Your task to perform on an android device: turn on location history Image 0: 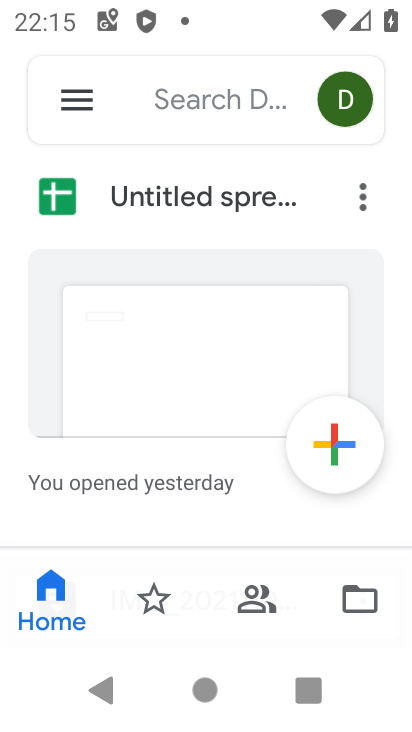
Step 0: press home button
Your task to perform on an android device: turn on location history Image 1: 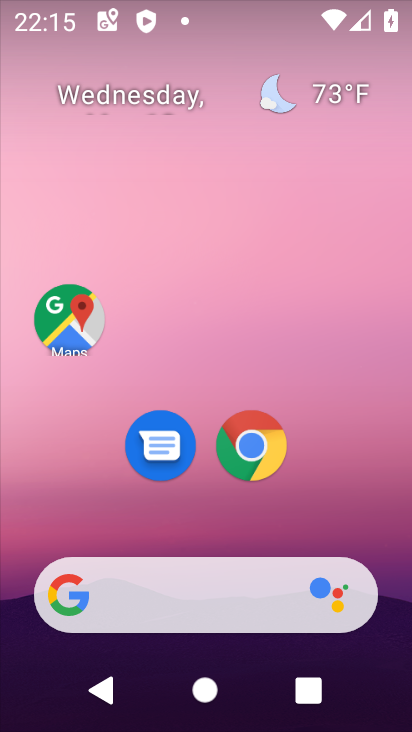
Step 1: drag from (292, 499) to (331, 101)
Your task to perform on an android device: turn on location history Image 2: 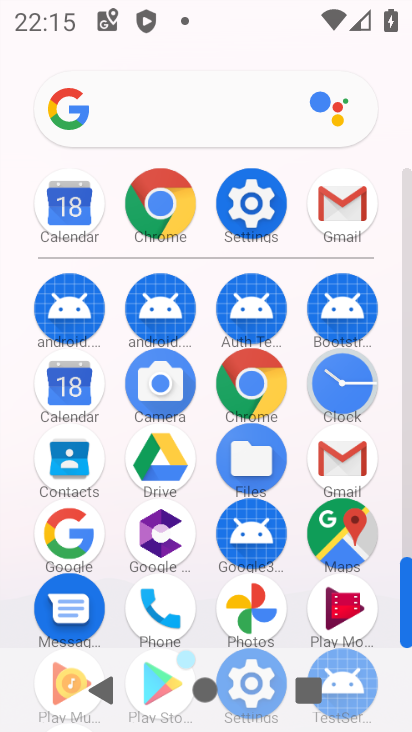
Step 2: click (244, 193)
Your task to perform on an android device: turn on location history Image 3: 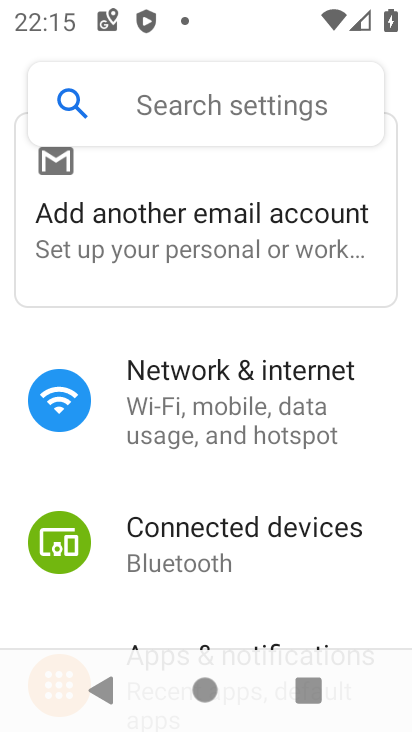
Step 3: drag from (231, 570) to (297, 125)
Your task to perform on an android device: turn on location history Image 4: 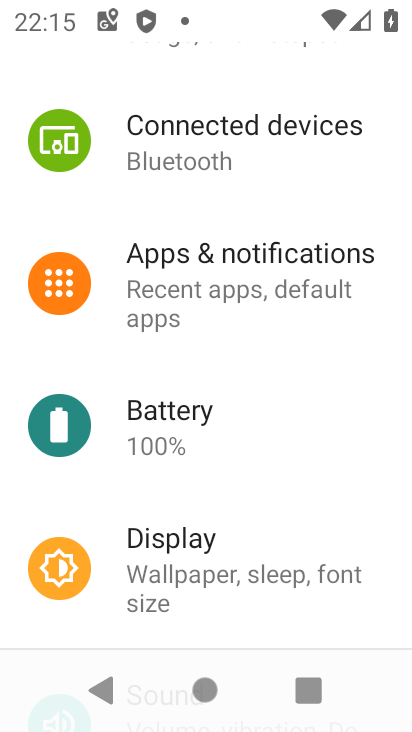
Step 4: drag from (194, 562) to (276, 166)
Your task to perform on an android device: turn on location history Image 5: 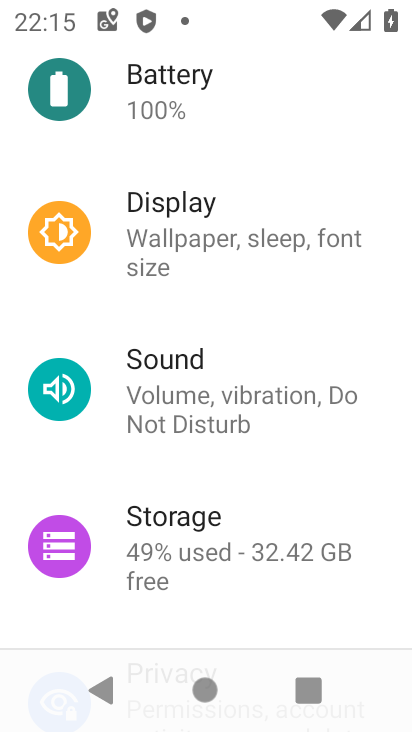
Step 5: drag from (211, 625) to (304, 261)
Your task to perform on an android device: turn on location history Image 6: 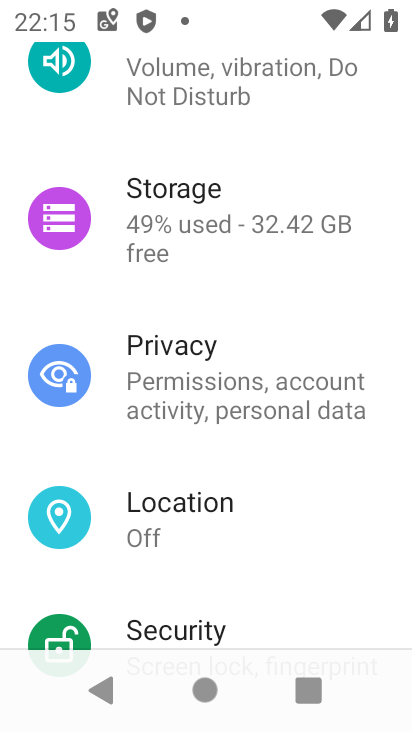
Step 6: click (206, 551)
Your task to perform on an android device: turn on location history Image 7: 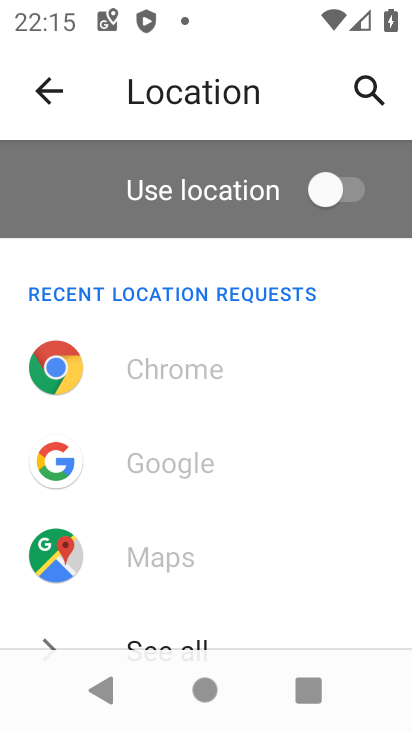
Step 7: drag from (192, 590) to (258, 125)
Your task to perform on an android device: turn on location history Image 8: 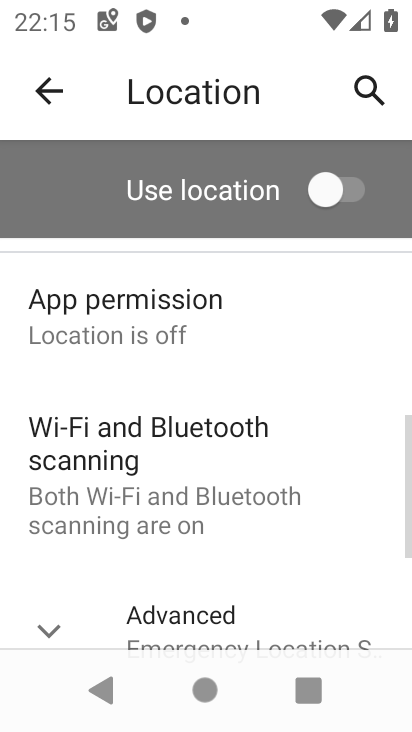
Step 8: drag from (206, 602) to (272, 319)
Your task to perform on an android device: turn on location history Image 9: 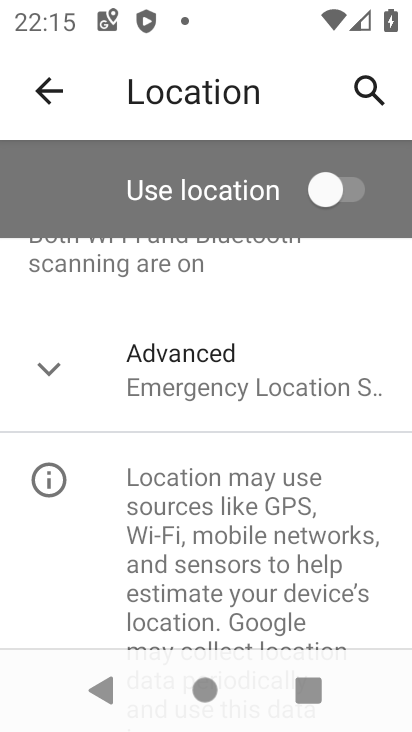
Step 9: click (232, 389)
Your task to perform on an android device: turn on location history Image 10: 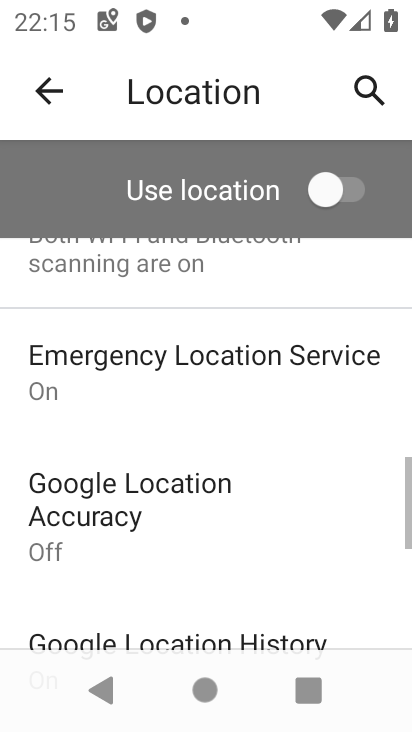
Step 10: drag from (199, 618) to (231, 374)
Your task to perform on an android device: turn on location history Image 11: 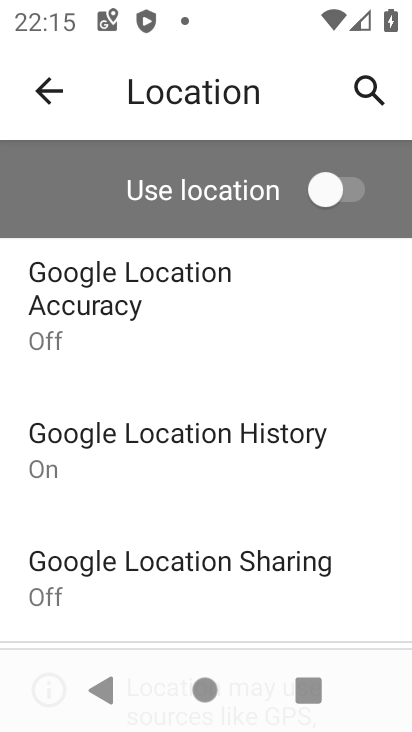
Step 11: click (188, 448)
Your task to perform on an android device: turn on location history Image 12: 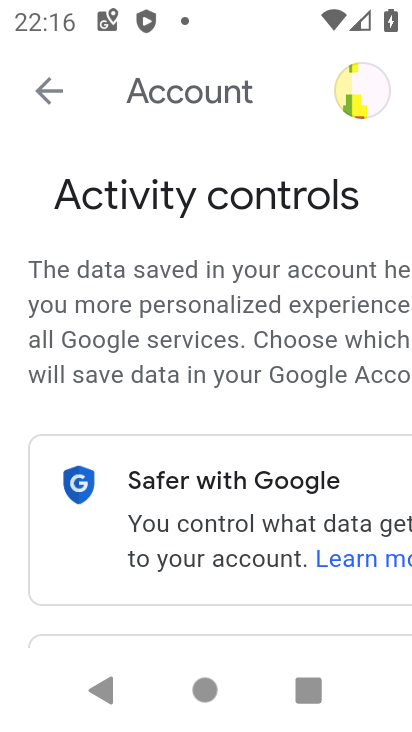
Step 12: task complete